Your task to perform on an android device: Open Maps and search for coffee Image 0: 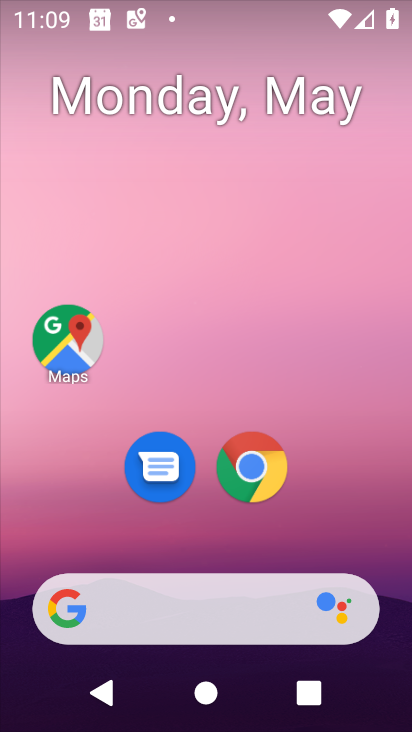
Step 0: click (73, 334)
Your task to perform on an android device: Open Maps and search for coffee Image 1: 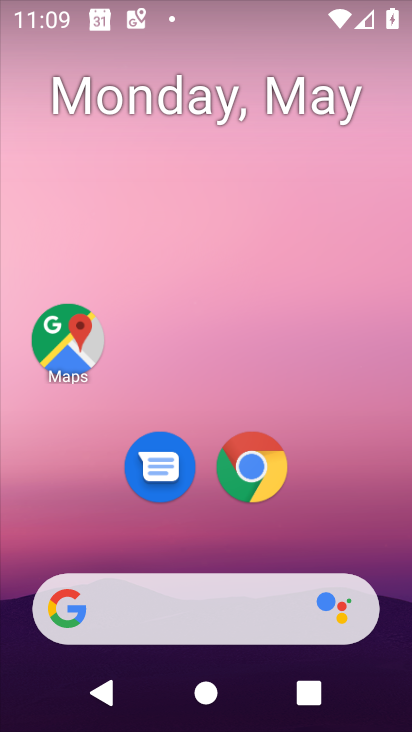
Step 1: click (73, 334)
Your task to perform on an android device: Open Maps and search for coffee Image 2: 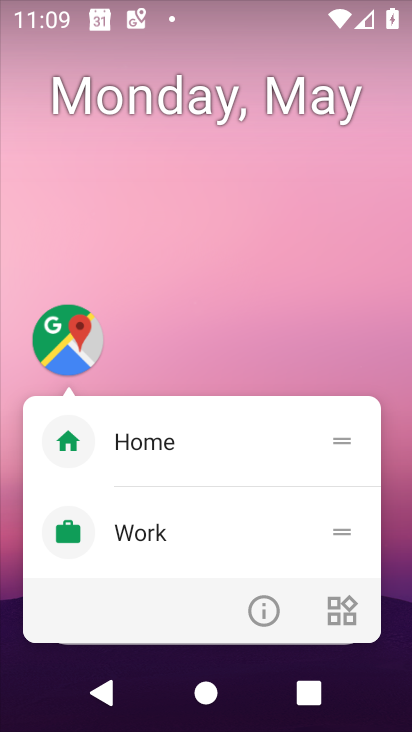
Step 2: click (73, 334)
Your task to perform on an android device: Open Maps and search for coffee Image 3: 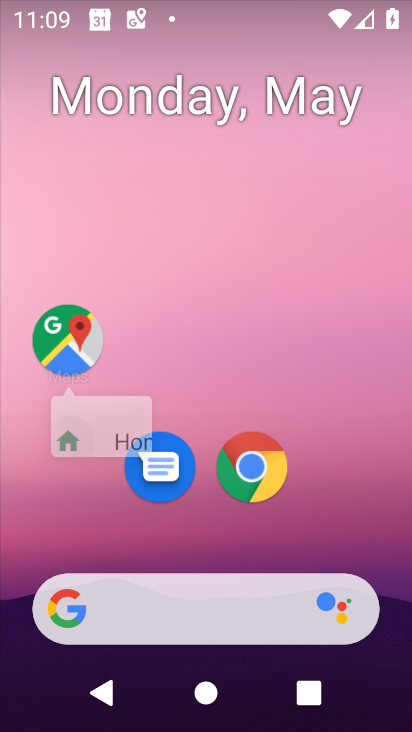
Step 3: click (73, 334)
Your task to perform on an android device: Open Maps and search for coffee Image 4: 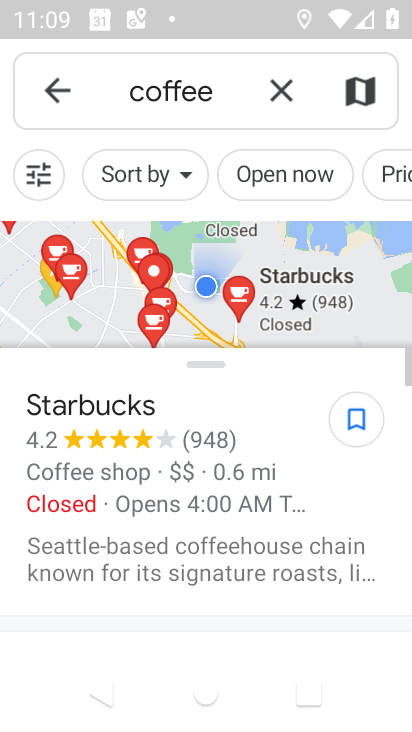
Step 4: click (220, 106)
Your task to perform on an android device: Open Maps and search for coffee Image 5: 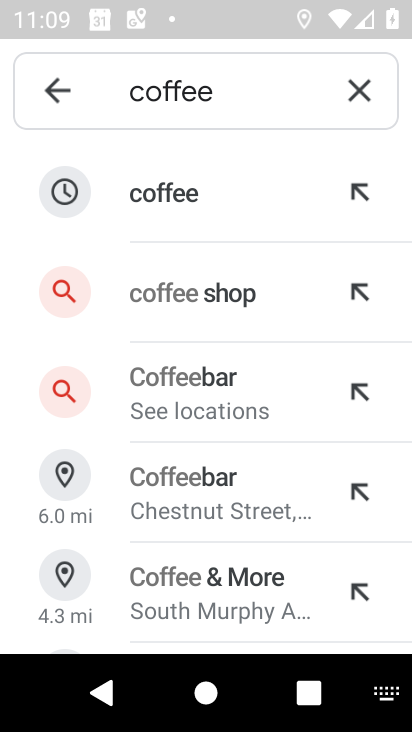
Step 5: click (219, 195)
Your task to perform on an android device: Open Maps and search for coffee Image 6: 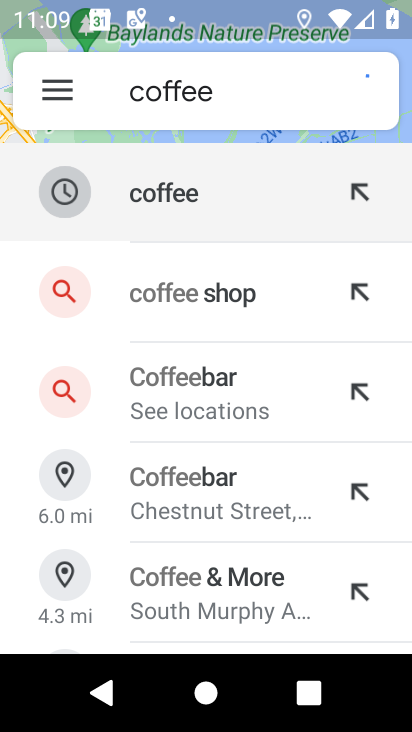
Step 6: click (219, 195)
Your task to perform on an android device: Open Maps and search for coffee Image 7: 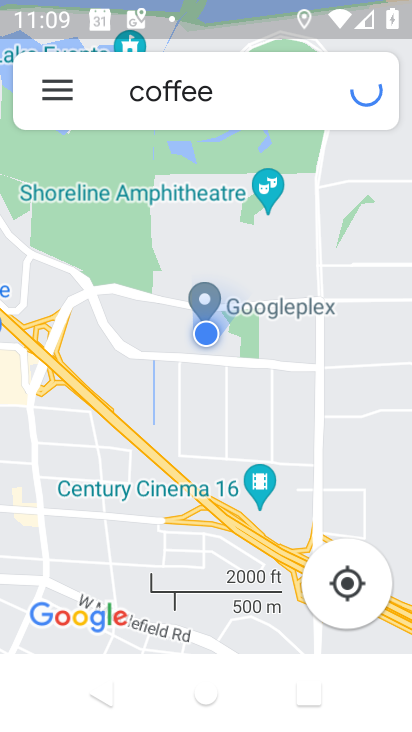
Step 7: click (219, 195)
Your task to perform on an android device: Open Maps and search for coffee Image 8: 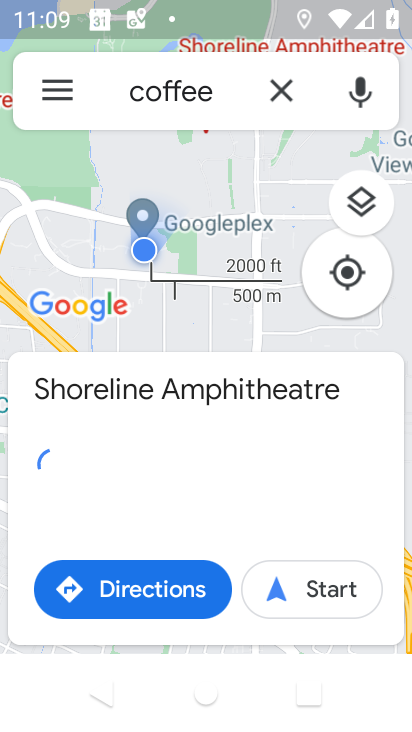
Step 8: task complete